Your task to perform on an android device: Go to display settings Image 0: 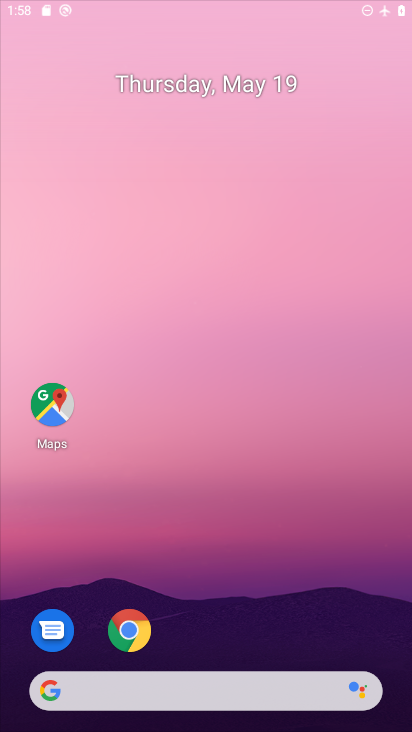
Step 0: drag from (206, 659) to (197, 99)
Your task to perform on an android device: Go to display settings Image 1: 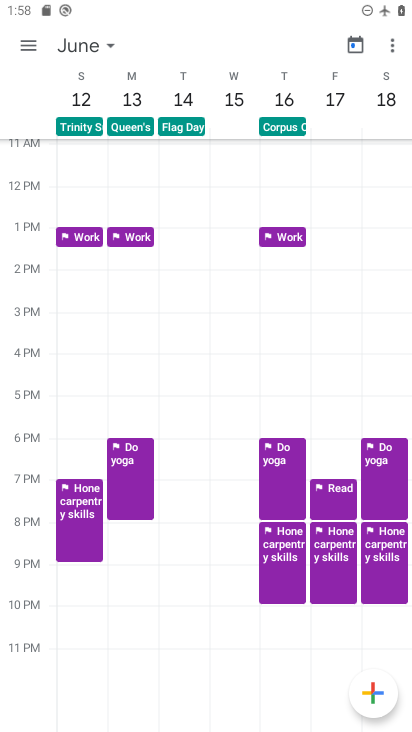
Step 1: press home button
Your task to perform on an android device: Go to display settings Image 2: 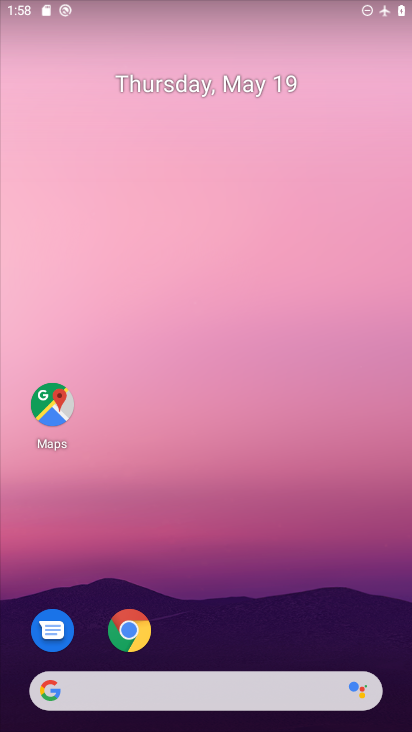
Step 2: drag from (197, 660) to (173, 7)
Your task to perform on an android device: Go to display settings Image 3: 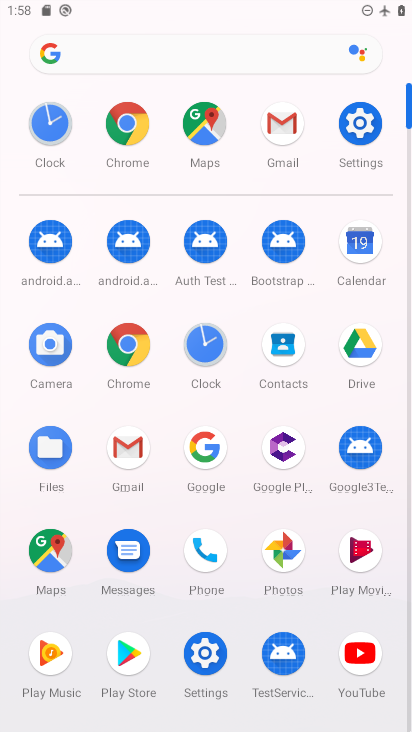
Step 3: click (366, 135)
Your task to perform on an android device: Go to display settings Image 4: 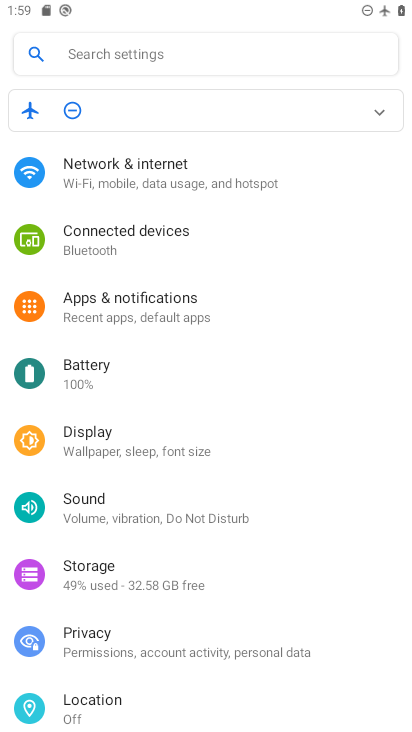
Step 4: drag from (152, 599) to (142, 157)
Your task to perform on an android device: Go to display settings Image 5: 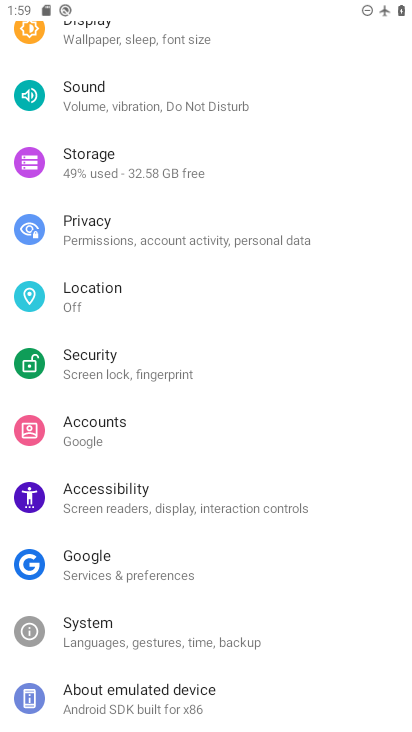
Step 5: click (96, 40)
Your task to perform on an android device: Go to display settings Image 6: 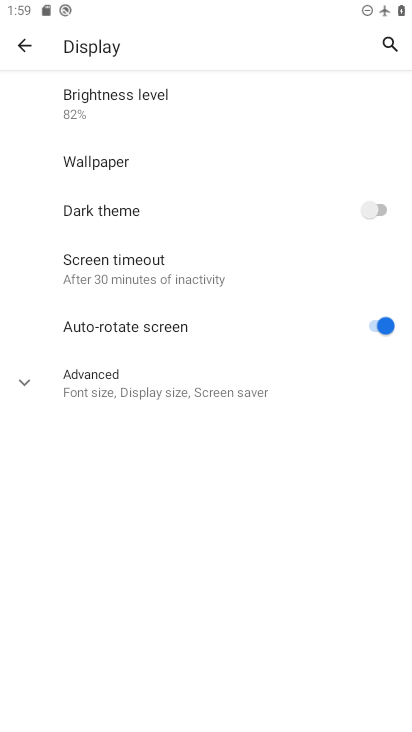
Step 6: click (134, 363)
Your task to perform on an android device: Go to display settings Image 7: 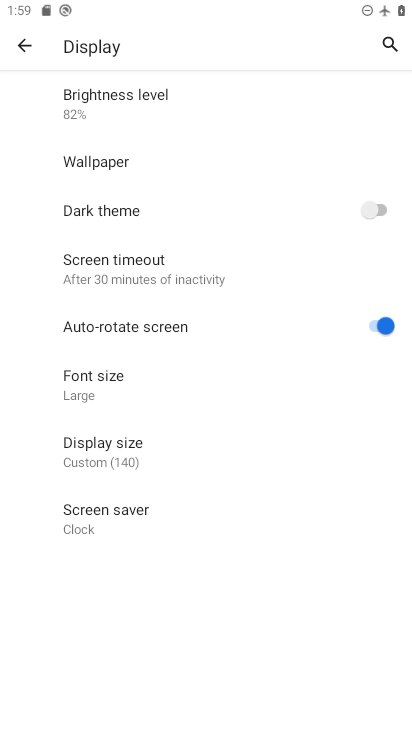
Step 7: task complete